Your task to perform on an android device: Clear all items from cart on bestbuy. Search for "dell xps" on bestbuy, select the first entry, and add it to the cart. Image 0: 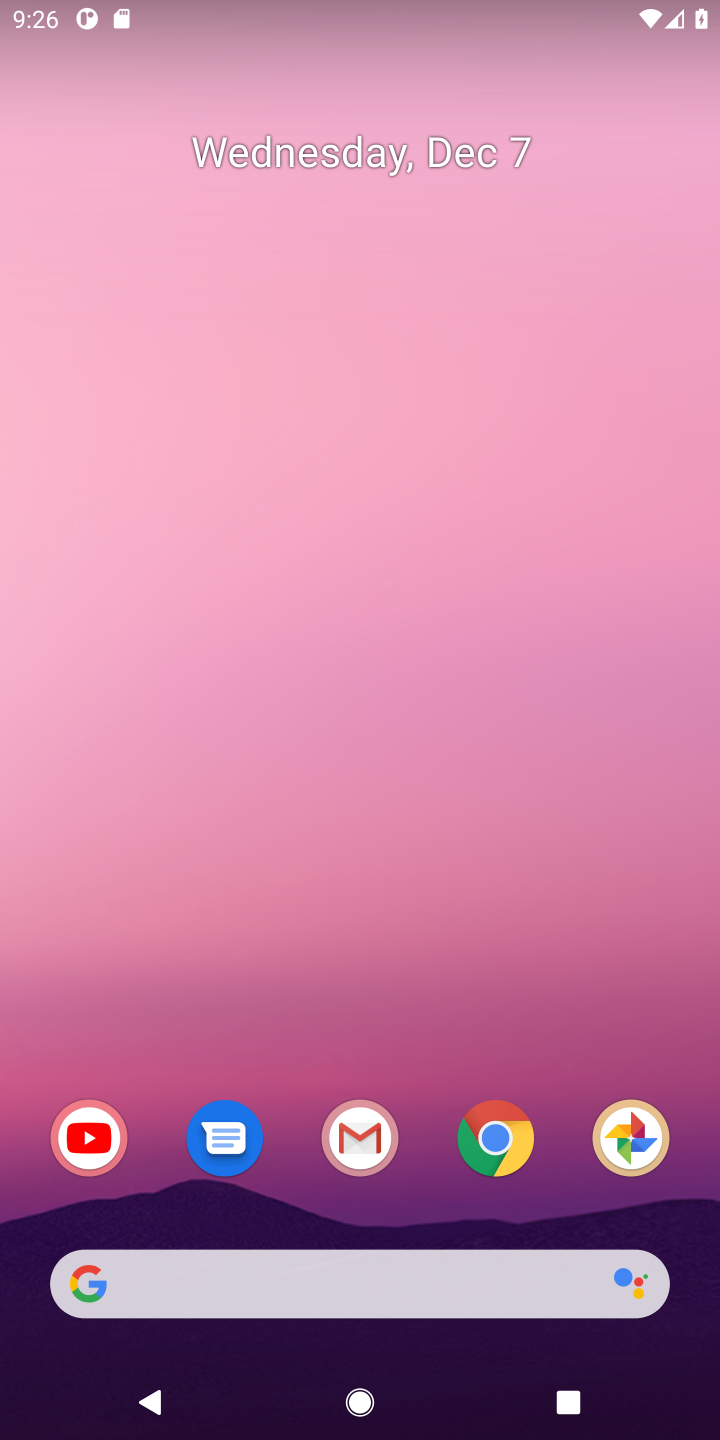
Step 0: press home button
Your task to perform on an android device: Clear all items from cart on bestbuy. Search for "dell xps" on bestbuy, select the first entry, and add it to the cart. Image 1: 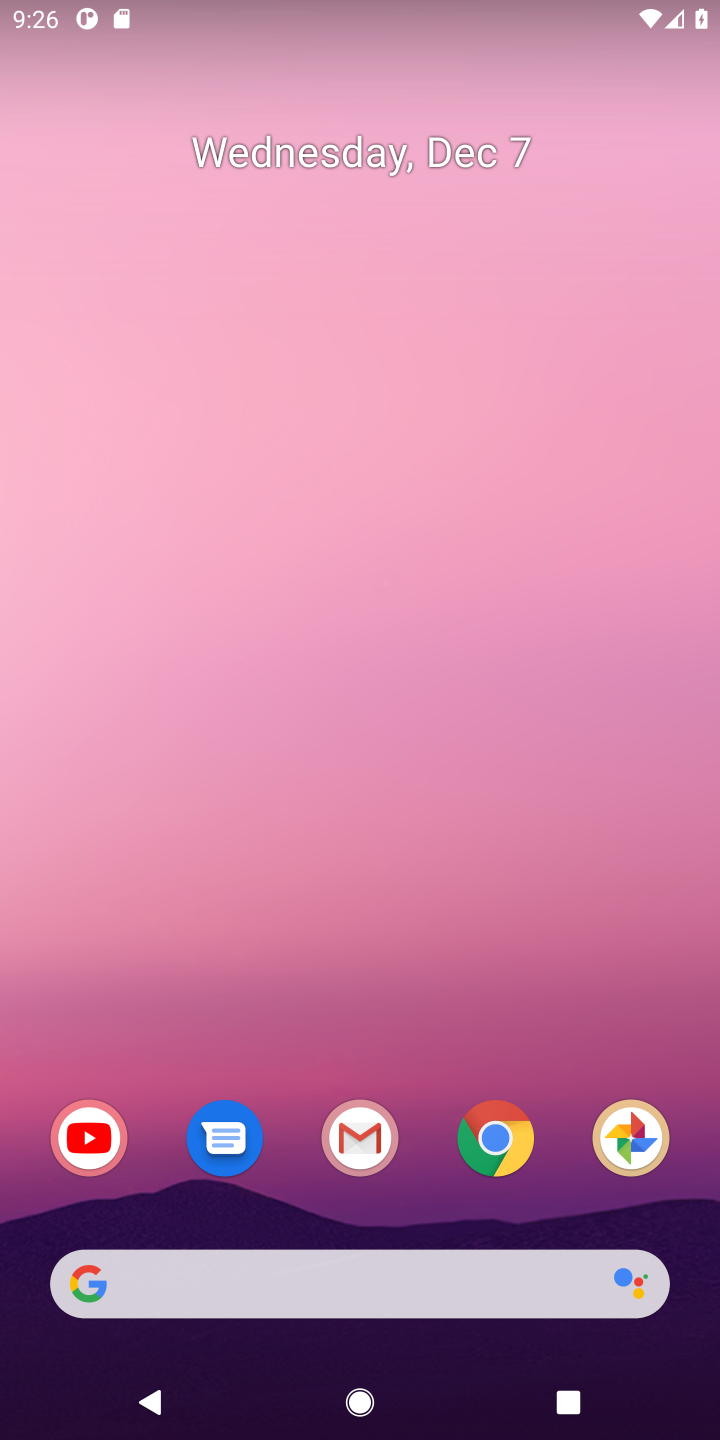
Step 1: click (120, 1284)
Your task to perform on an android device: Clear all items from cart on bestbuy. Search for "dell xps" on bestbuy, select the first entry, and add it to the cart. Image 2: 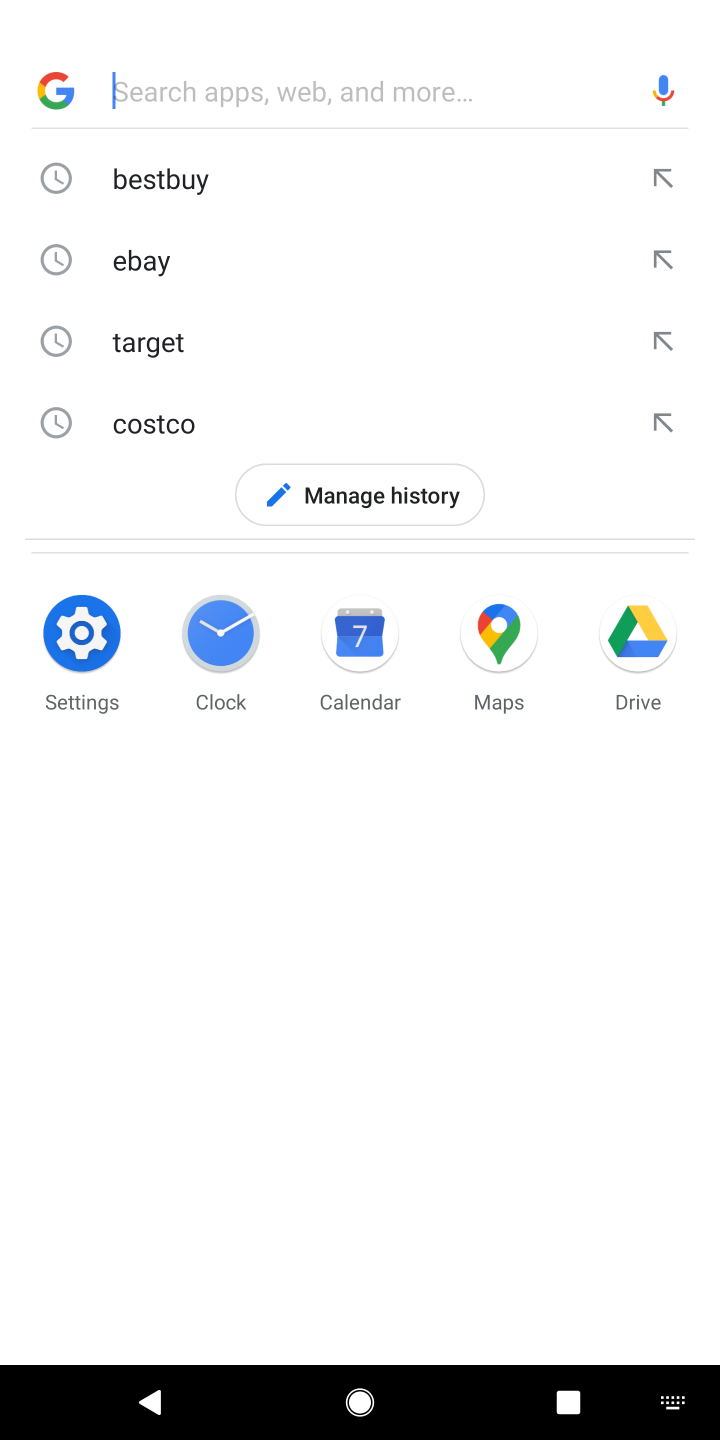
Step 2: press enter
Your task to perform on an android device: Clear all items from cart on bestbuy. Search for "dell xps" on bestbuy, select the first entry, and add it to the cart. Image 3: 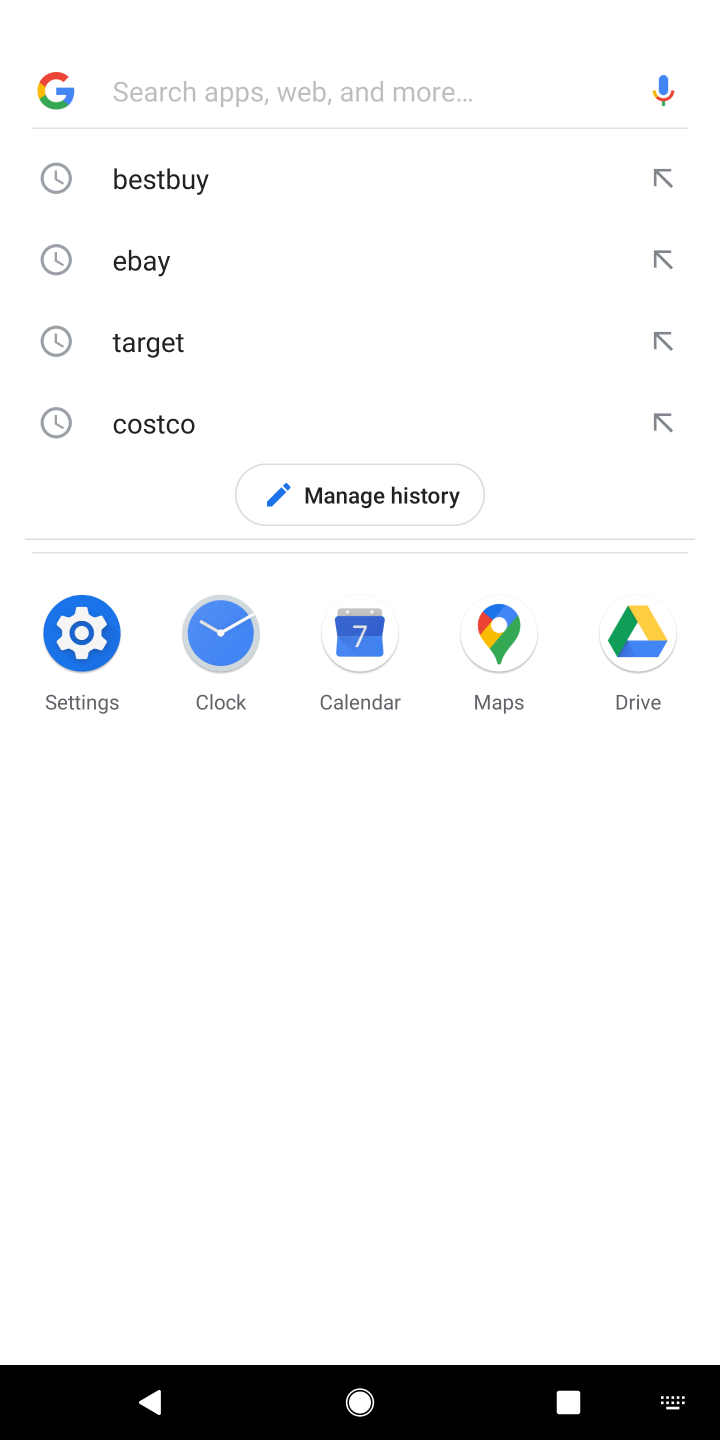
Step 3: type "bestbuy"
Your task to perform on an android device: Clear all items from cart on bestbuy. Search for "dell xps" on bestbuy, select the first entry, and add it to the cart. Image 4: 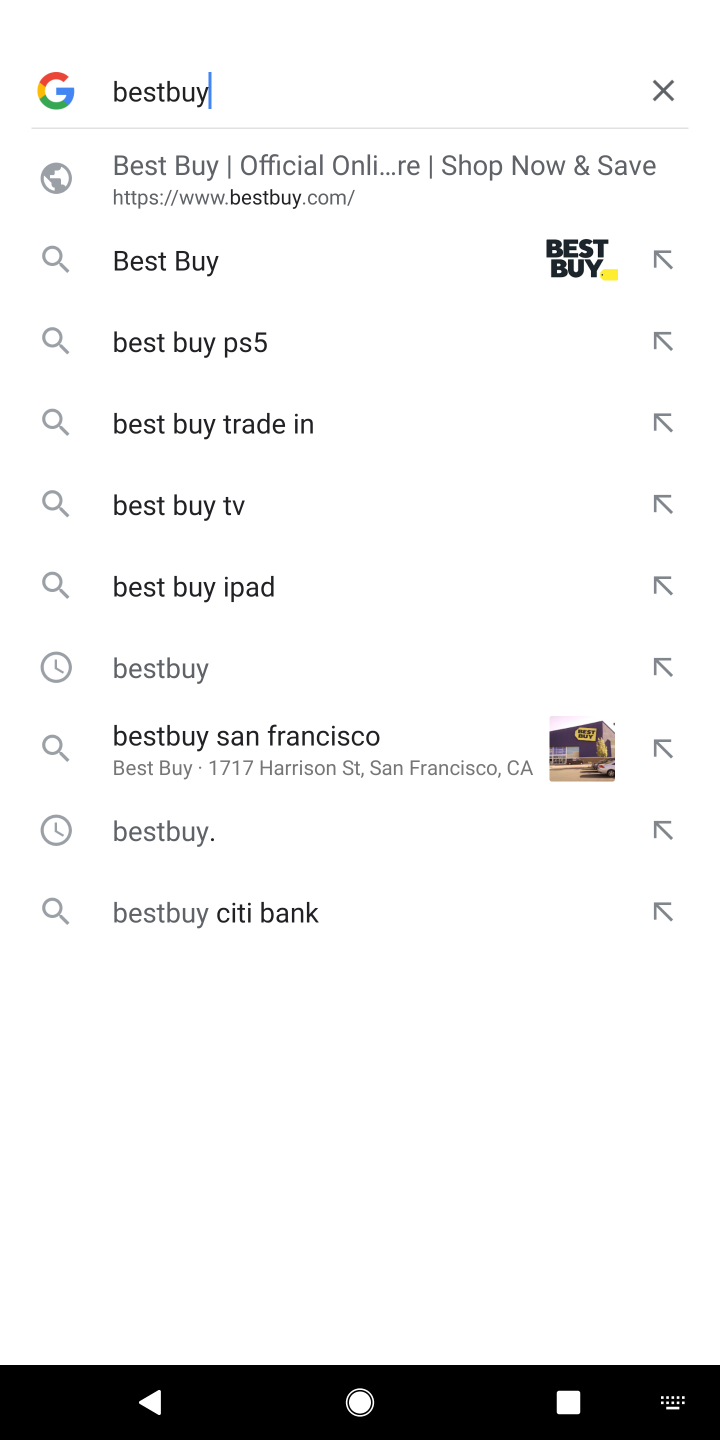
Step 4: press enter
Your task to perform on an android device: Clear all items from cart on bestbuy. Search for "dell xps" on bestbuy, select the first entry, and add it to the cart. Image 5: 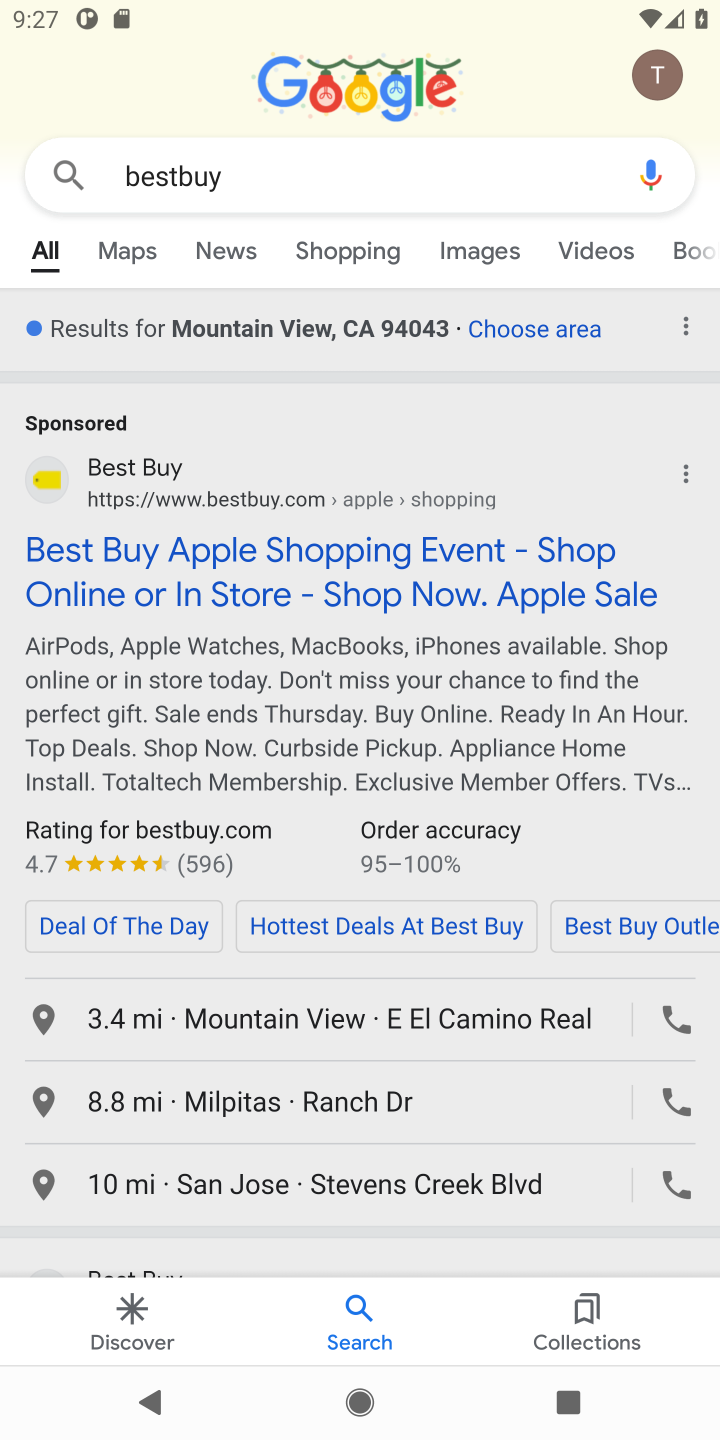
Step 5: click (298, 580)
Your task to perform on an android device: Clear all items from cart on bestbuy. Search for "dell xps" on bestbuy, select the first entry, and add it to the cart. Image 6: 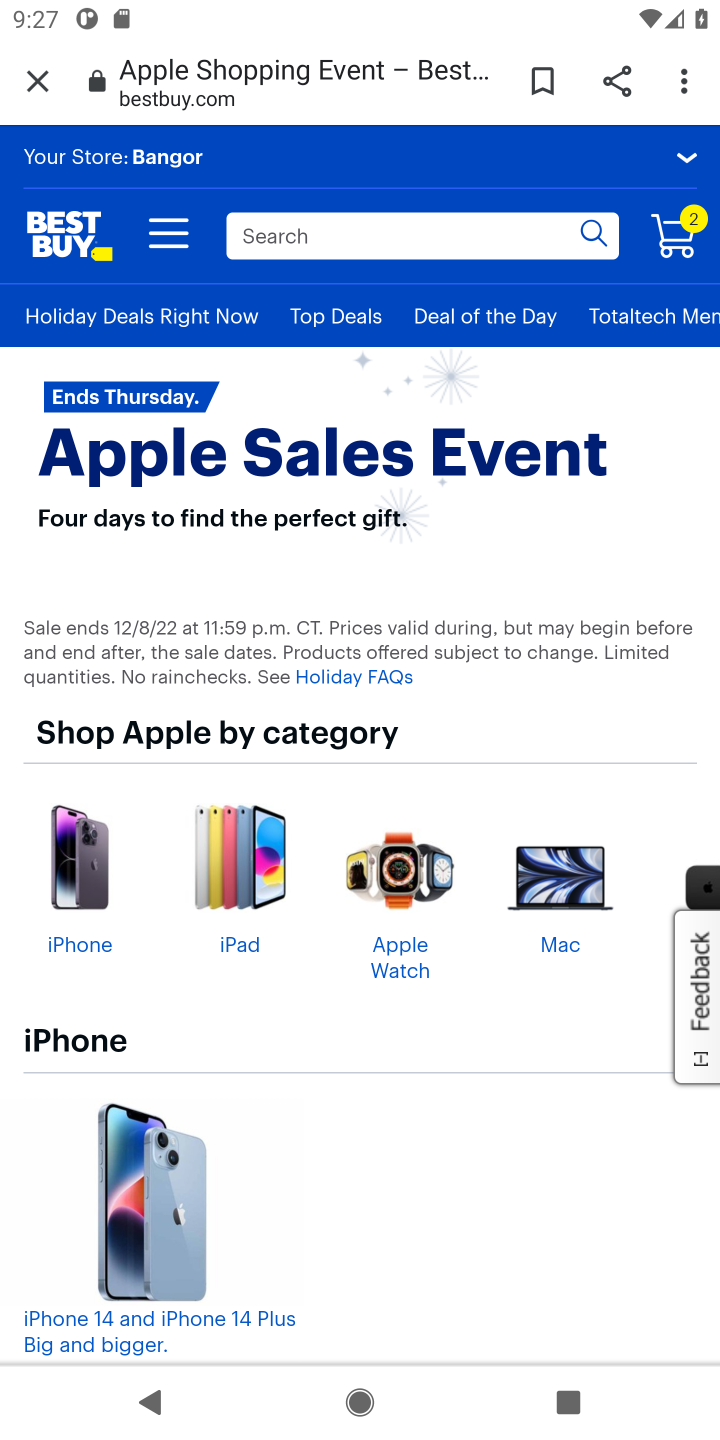
Step 6: click (699, 225)
Your task to perform on an android device: Clear all items from cart on bestbuy. Search for "dell xps" on bestbuy, select the first entry, and add it to the cart. Image 7: 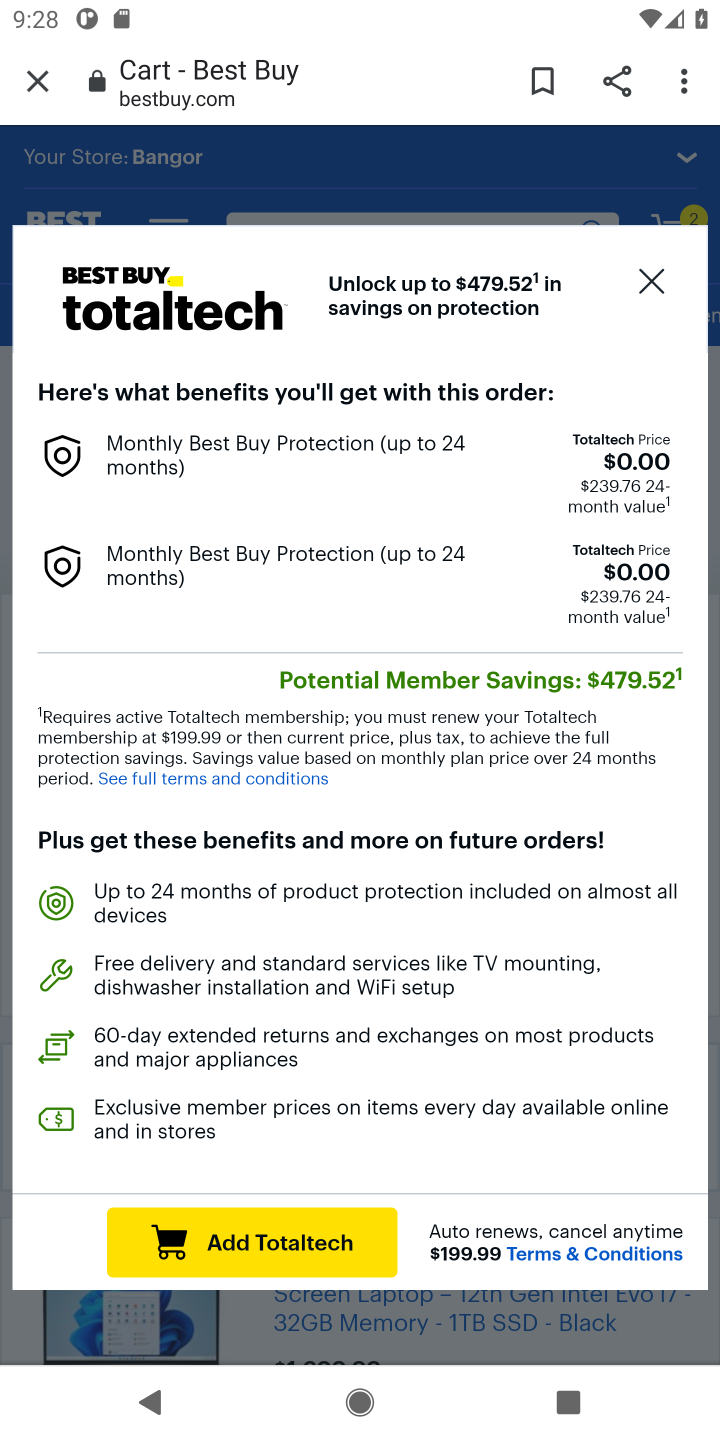
Step 7: click (646, 265)
Your task to perform on an android device: Clear all items from cart on bestbuy. Search for "dell xps" on bestbuy, select the first entry, and add it to the cart. Image 8: 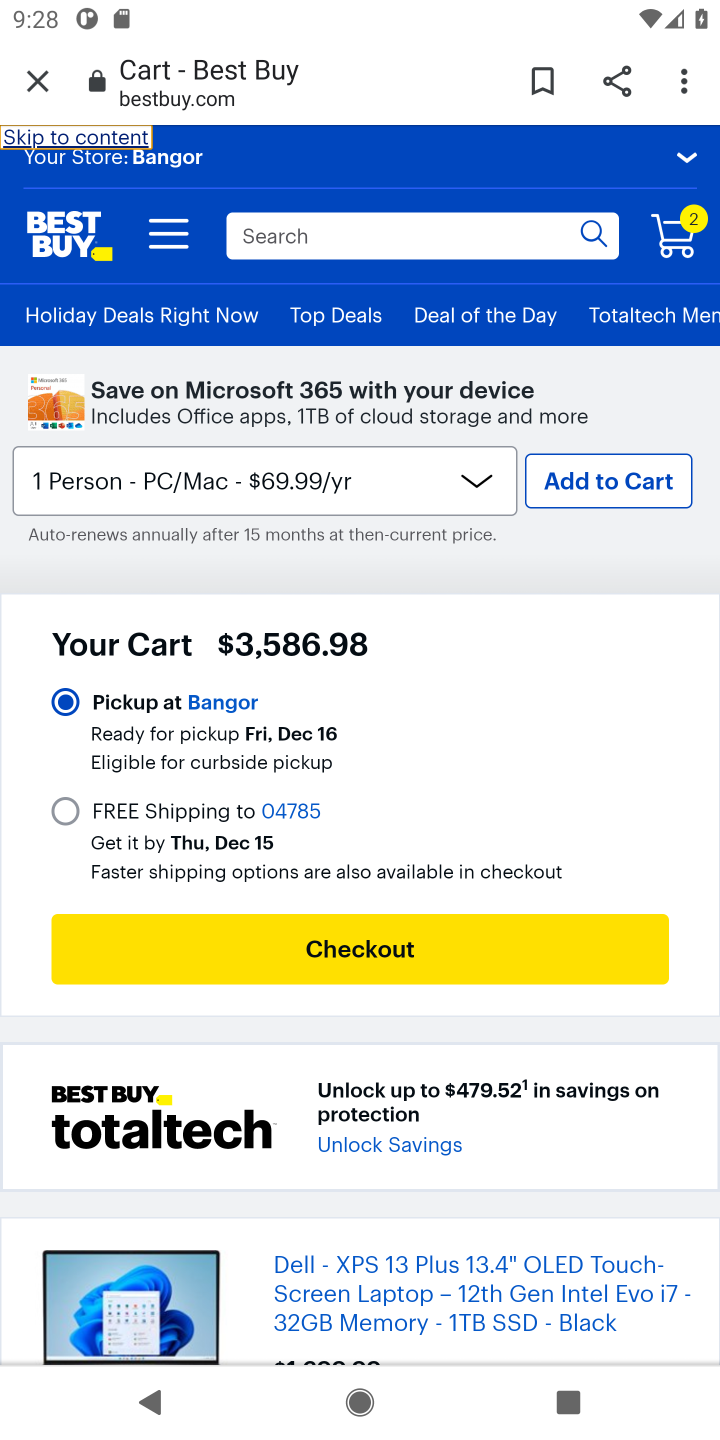
Step 8: drag from (380, 1112) to (393, 514)
Your task to perform on an android device: Clear all items from cart on bestbuy. Search for "dell xps" on bestbuy, select the first entry, and add it to the cart. Image 9: 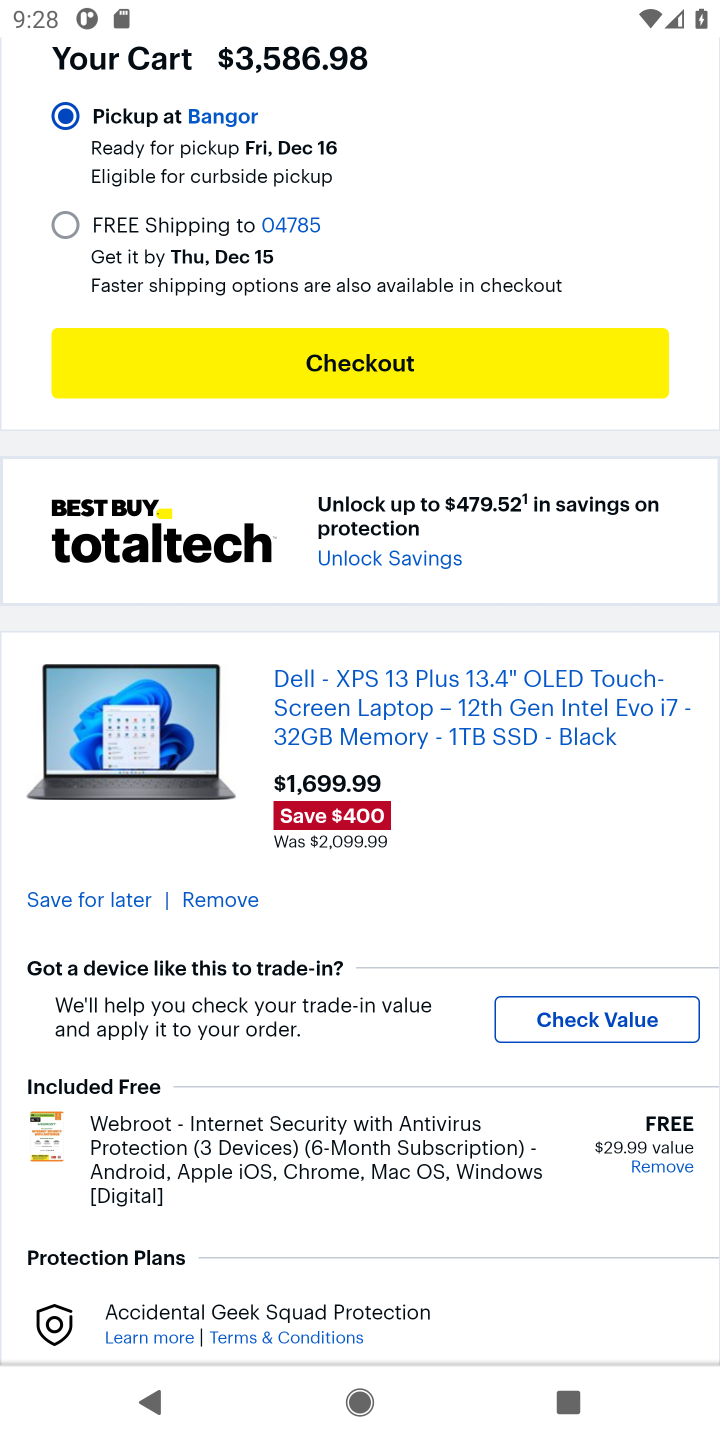
Step 9: drag from (346, 1083) to (418, 527)
Your task to perform on an android device: Clear all items from cart on bestbuy. Search for "dell xps" on bestbuy, select the first entry, and add it to the cart. Image 10: 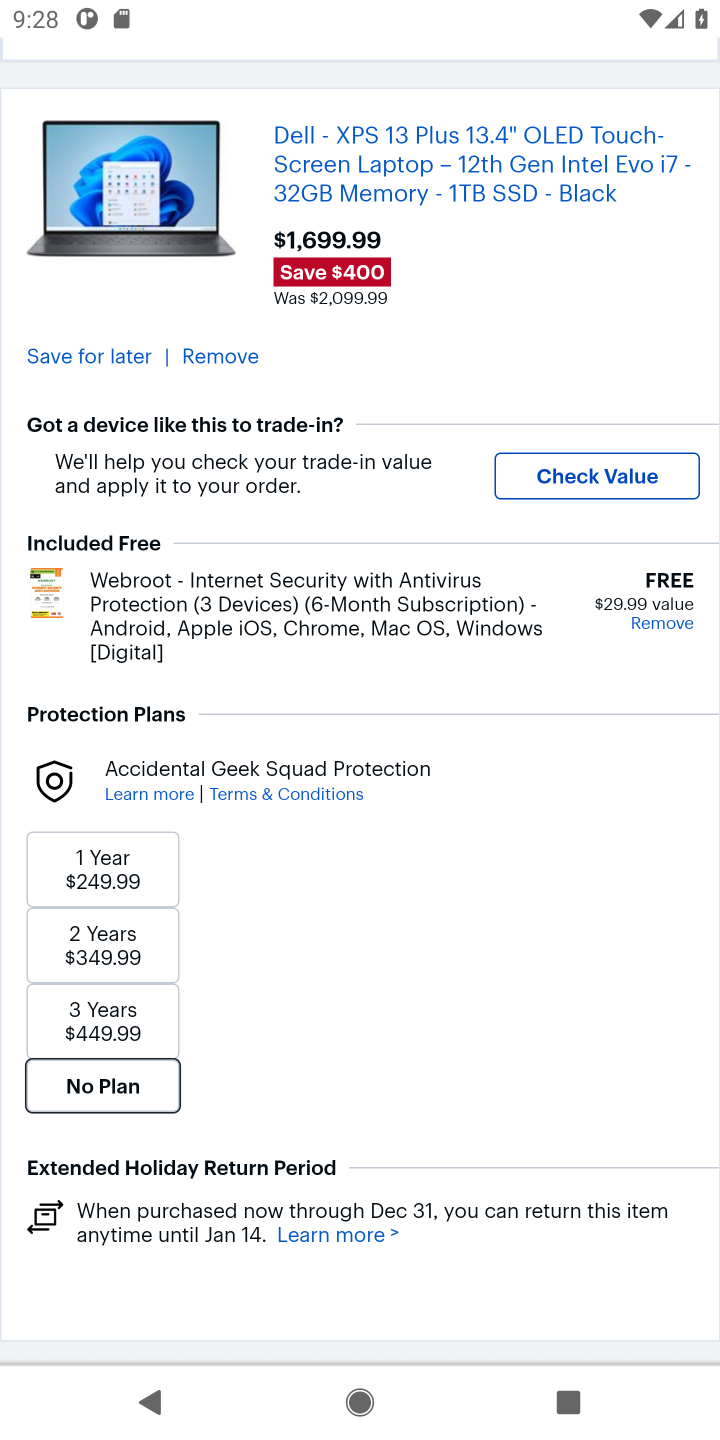
Step 10: drag from (371, 1122) to (388, 693)
Your task to perform on an android device: Clear all items from cart on bestbuy. Search for "dell xps" on bestbuy, select the first entry, and add it to the cart. Image 11: 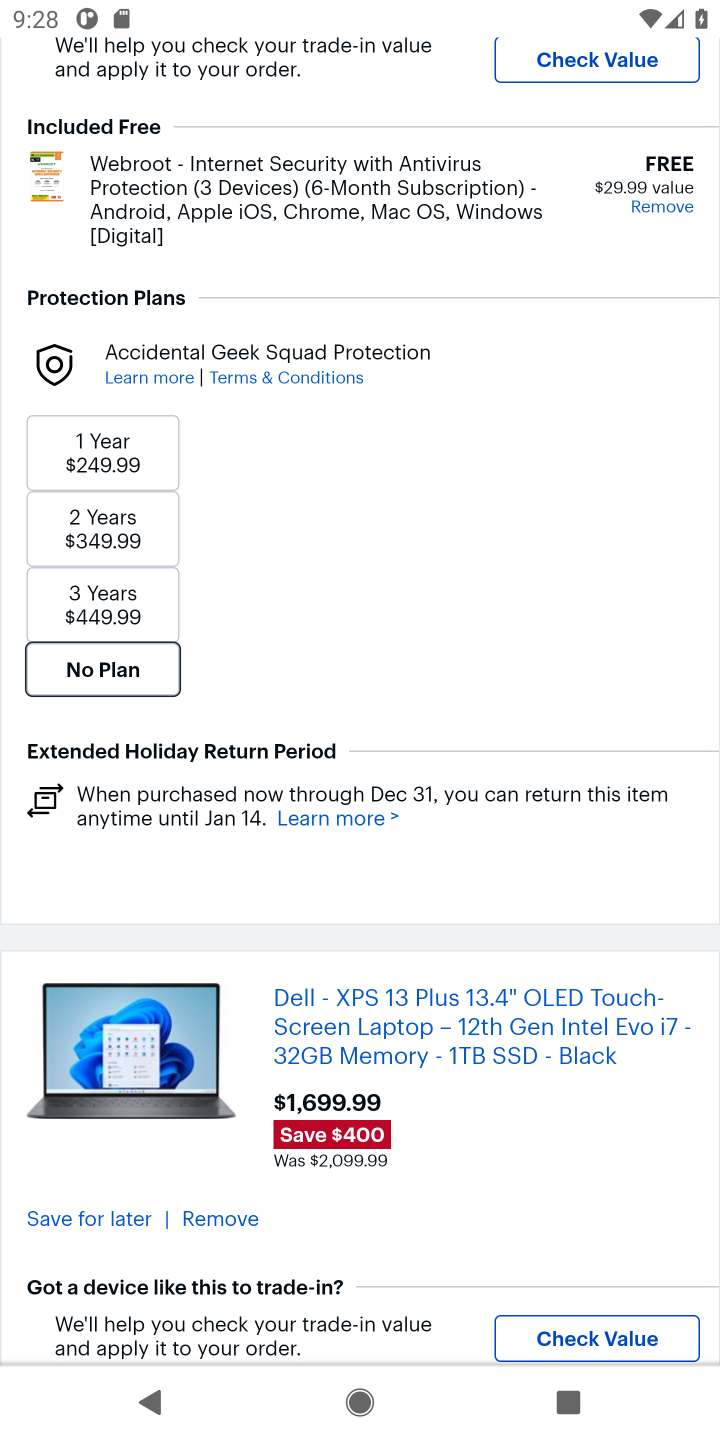
Step 11: drag from (409, 1098) to (405, 625)
Your task to perform on an android device: Clear all items from cart on bestbuy. Search for "dell xps" on bestbuy, select the first entry, and add it to the cart. Image 12: 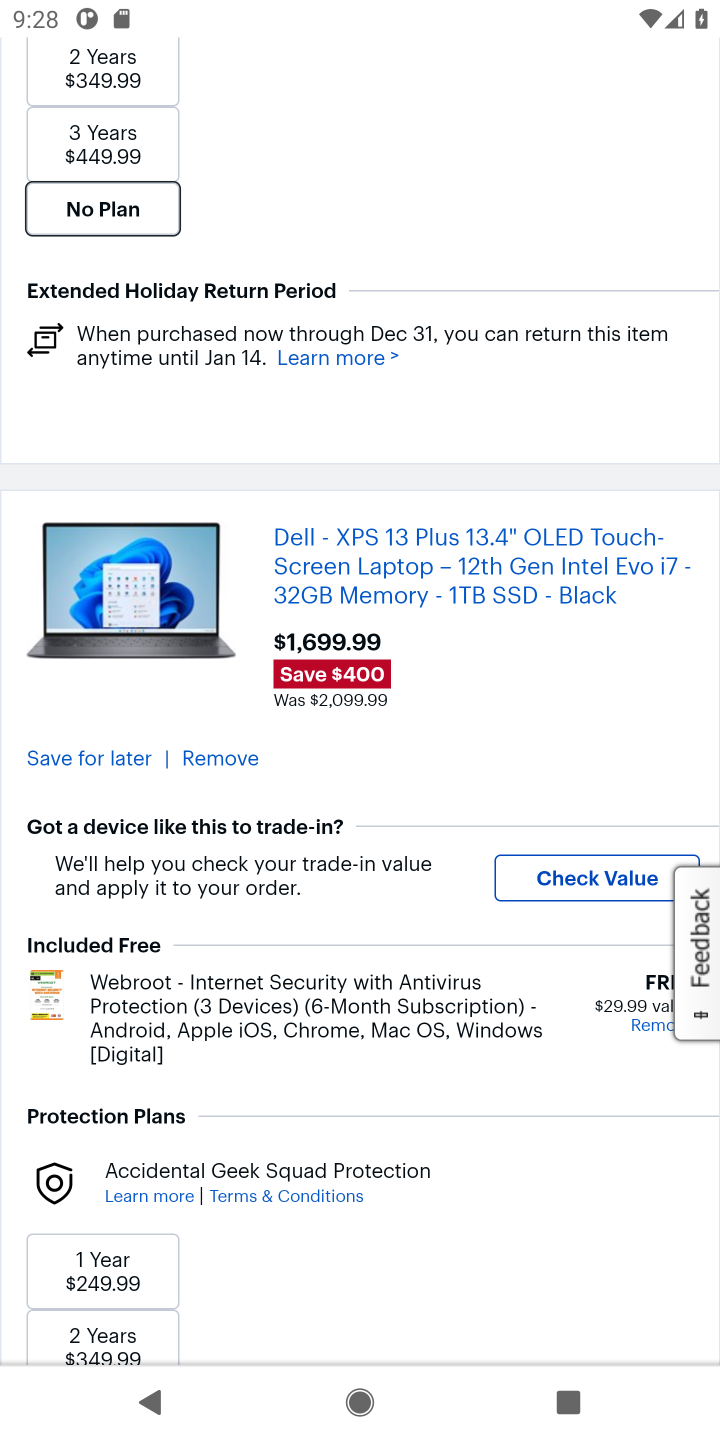
Step 12: click (207, 754)
Your task to perform on an android device: Clear all items from cart on bestbuy. Search for "dell xps" on bestbuy, select the first entry, and add it to the cart. Image 13: 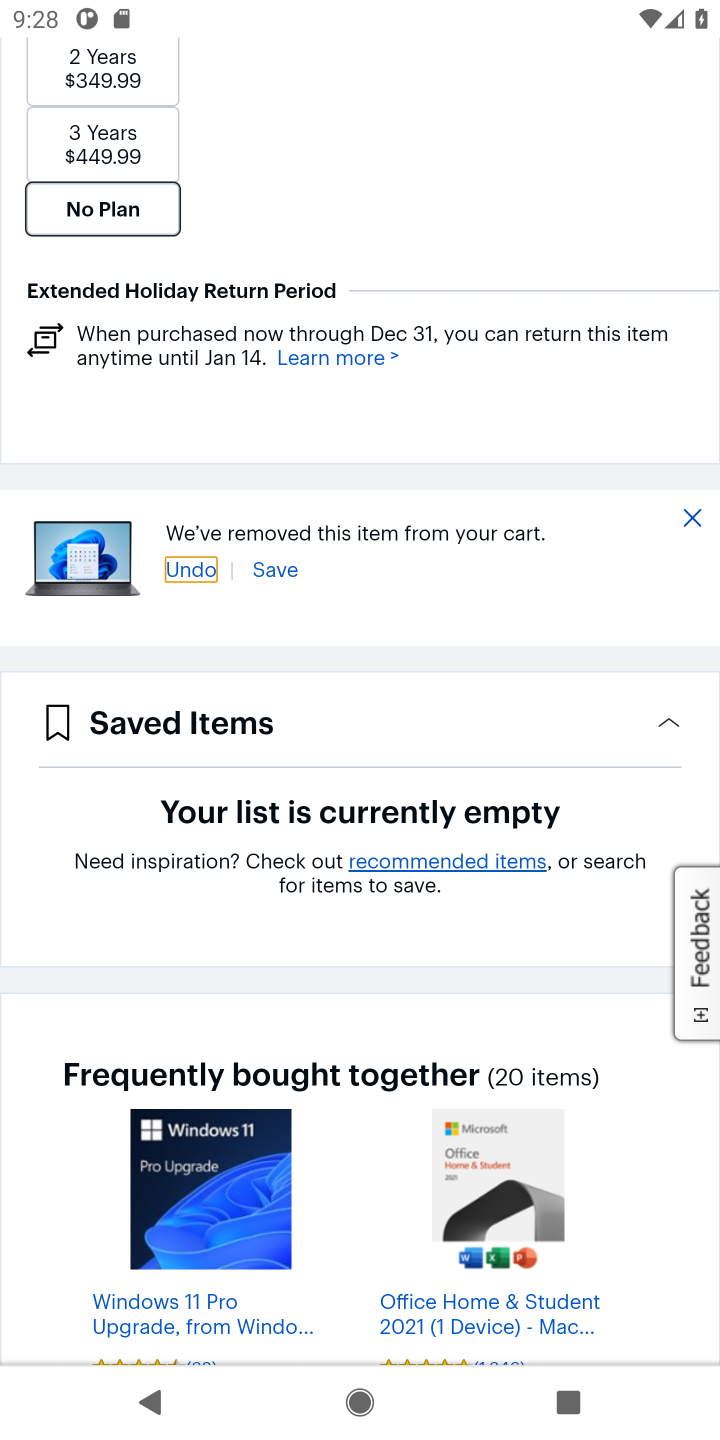
Step 13: drag from (498, 259) to (483, 1082)
Your task to perform on an android device: Clear all items from cart on bestbuy. Search for "dell xps" on bestbuy, select the first entry, and add it to the cart. Image 14: 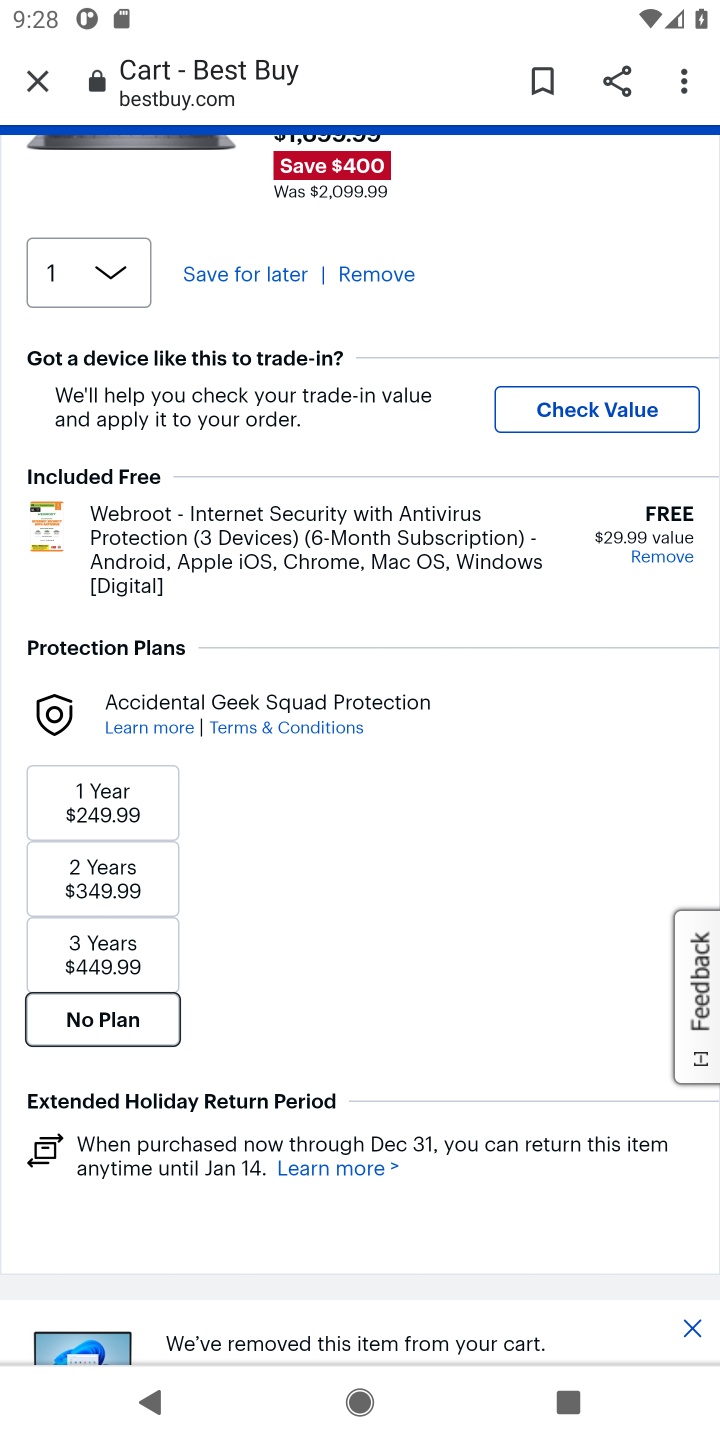
Step 14: click (316, 170)
Your task to perform on an android device: Clear all items from cart on bestbuy. Search for "dell xps" on bestbuy, select the first entry, and add it to the cart. Image 15: 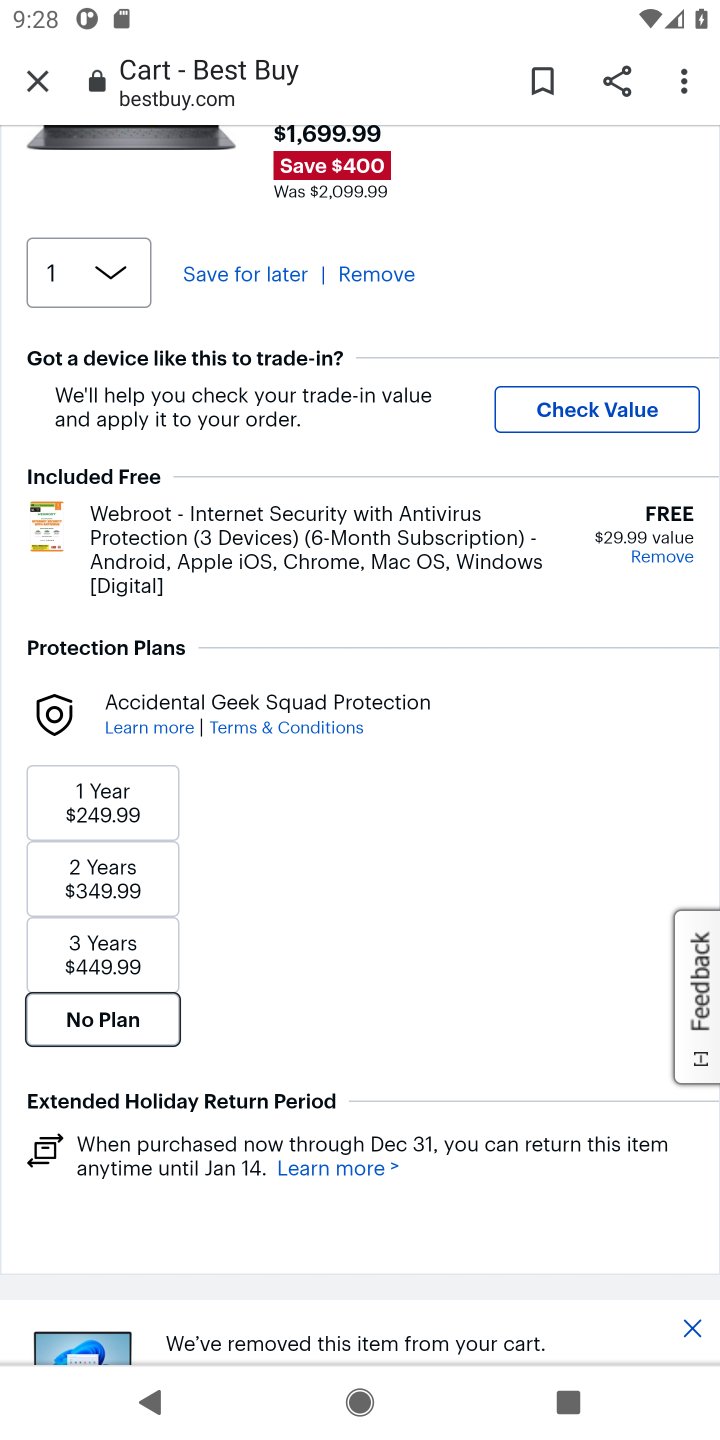
Step 15: press back button
Your task to perform on an android device: Clear all items from cart on bestbuy. Search for "dell xps" on bestbuy, select the first entry, and add it to the cart. Image 16: 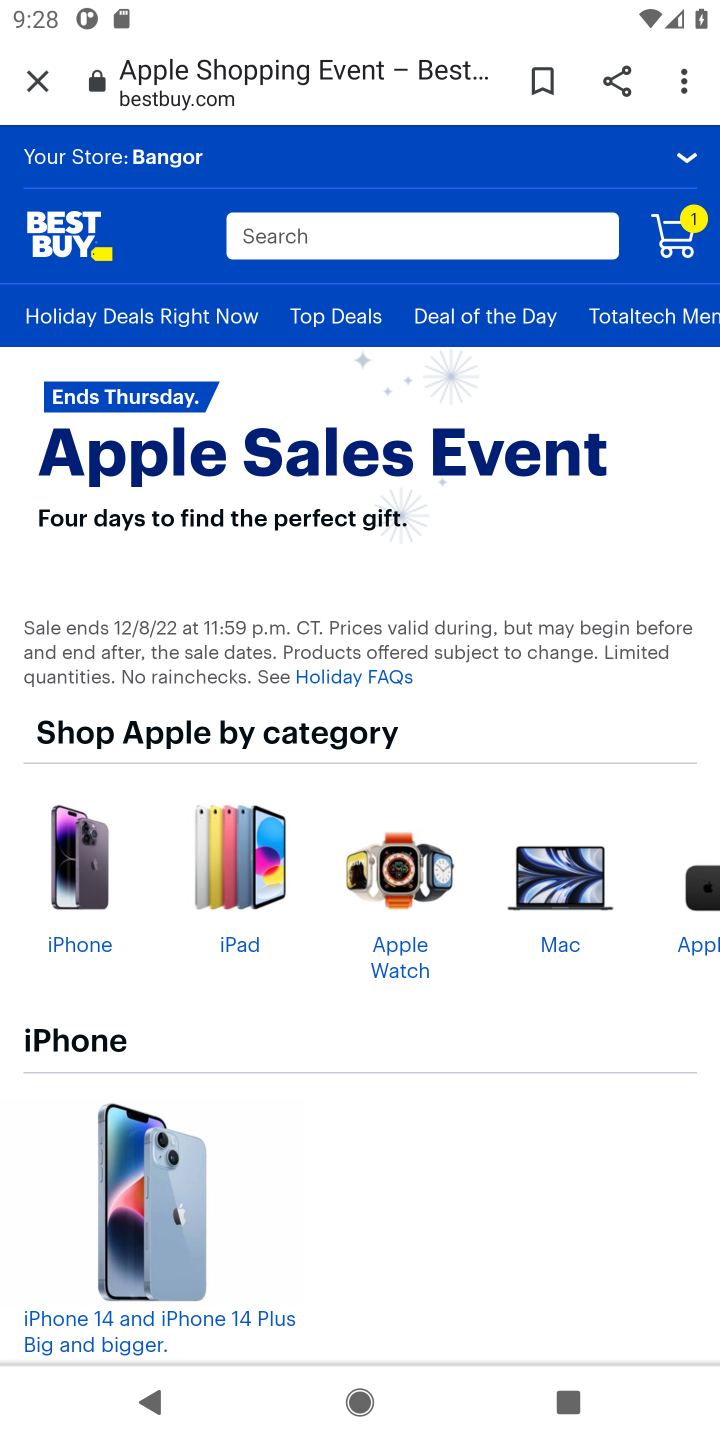
Step 16: click (273, 231)
Your task to perform on an android device: Clear all items from cart on bestbuy. Search for "dell xps" on bestbuy, select the first entry, and add it to the cart. Image 17: 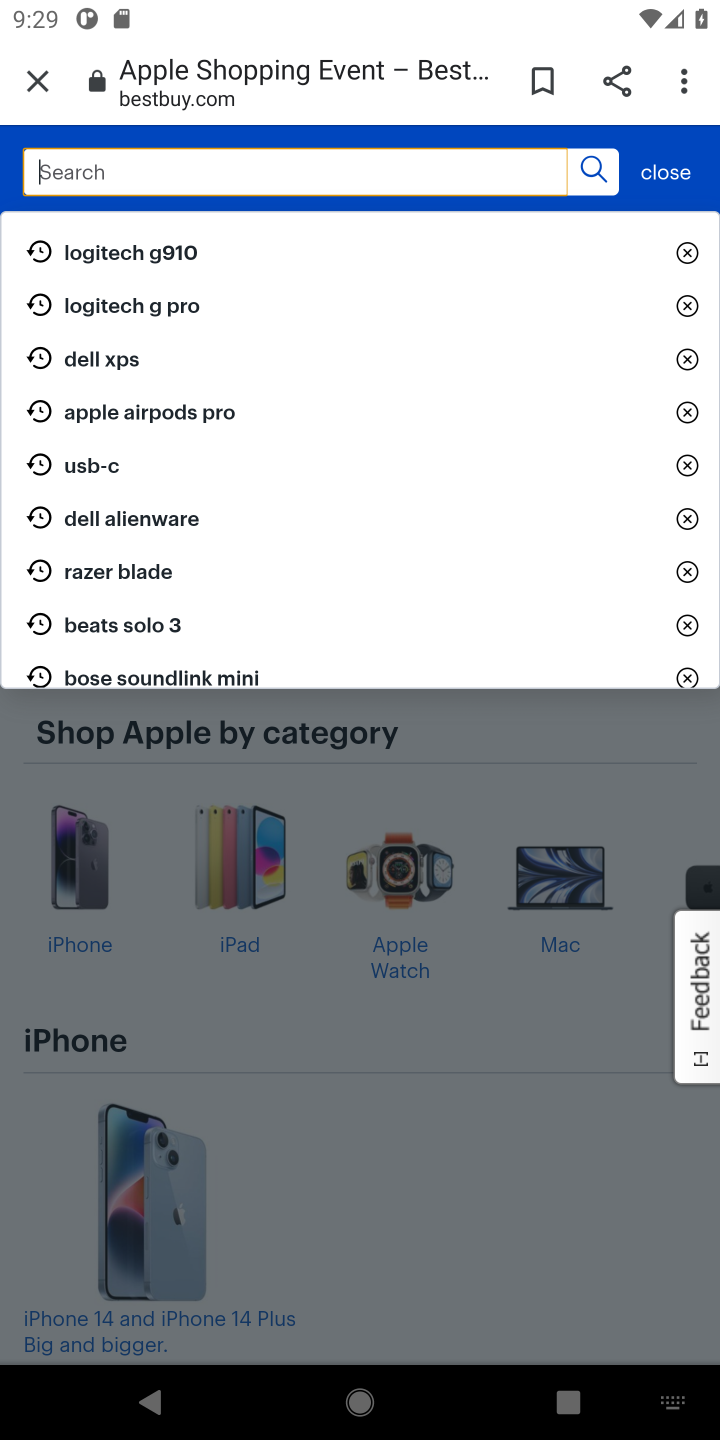
Step 17: press enter
Your task to perform on an android device: Clear all items from cart on bestbuy. Search for "dell xps" on bestbuy, select the first entry, and add it to the cart. Image 18: 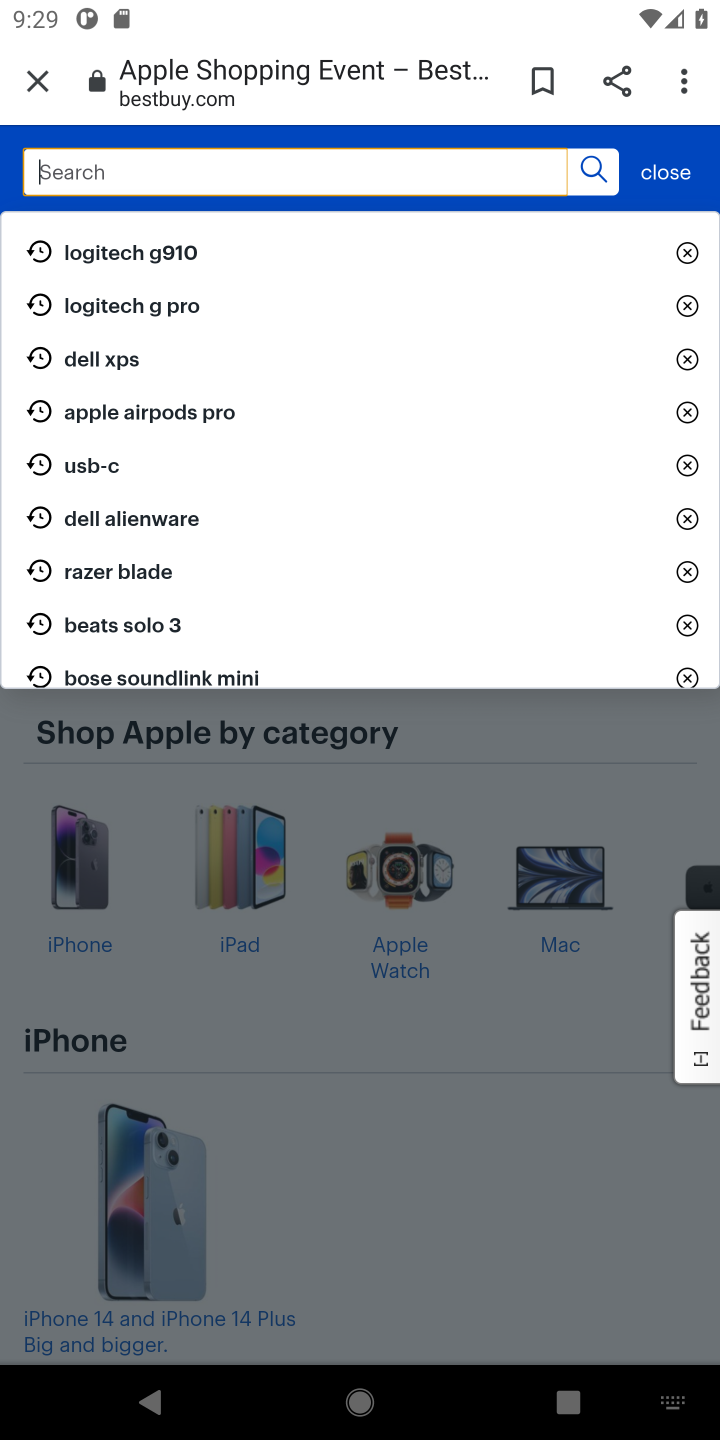
Step 18: type "dell xps"
Your task to perform on an android device: Clear all items from cart on bestbuy. Search for "dell xps" on bestbuy, select the first entry, and add it to the cart. Image 19: 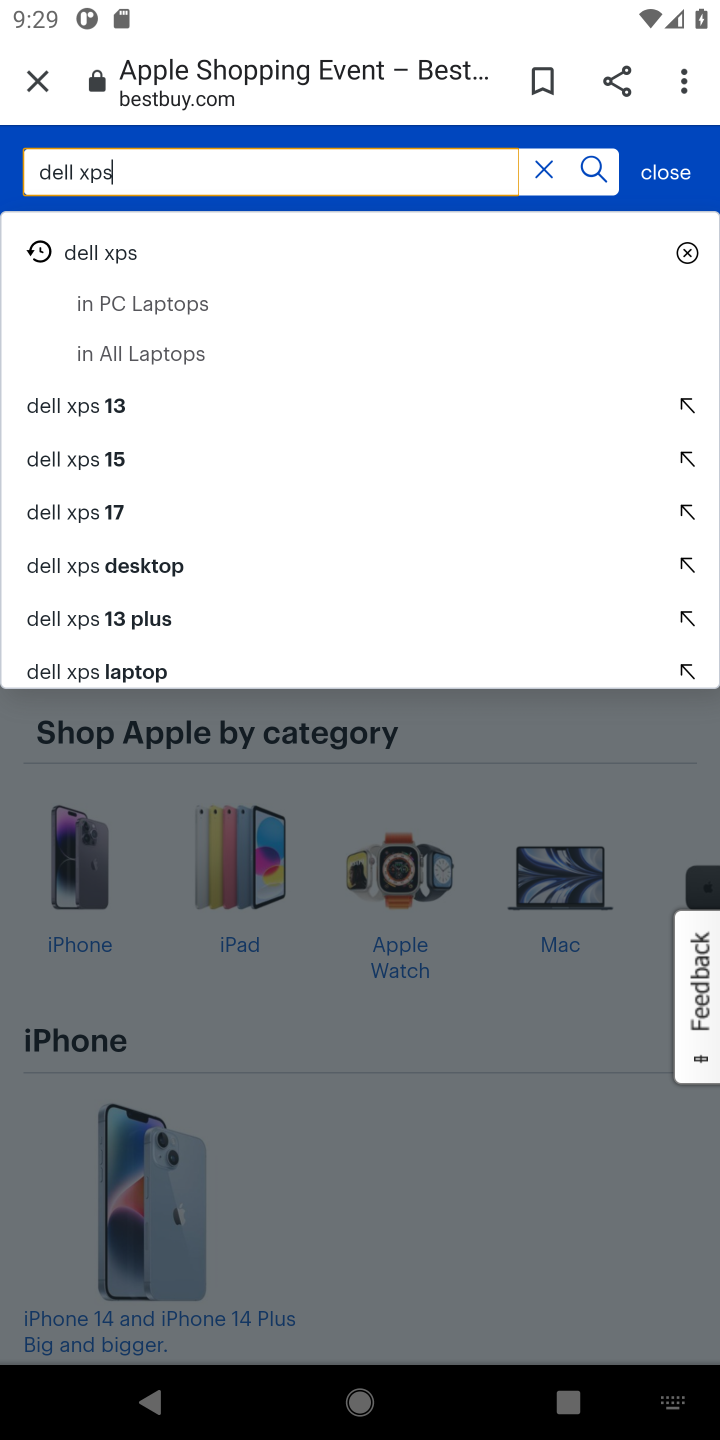
Step 19: press enter
Your task to perform on an android device: Clear all items from cart on bestbuy. Search for "dell xps" on bestbuy, select the first entry, and add it to the cart. Image 20: 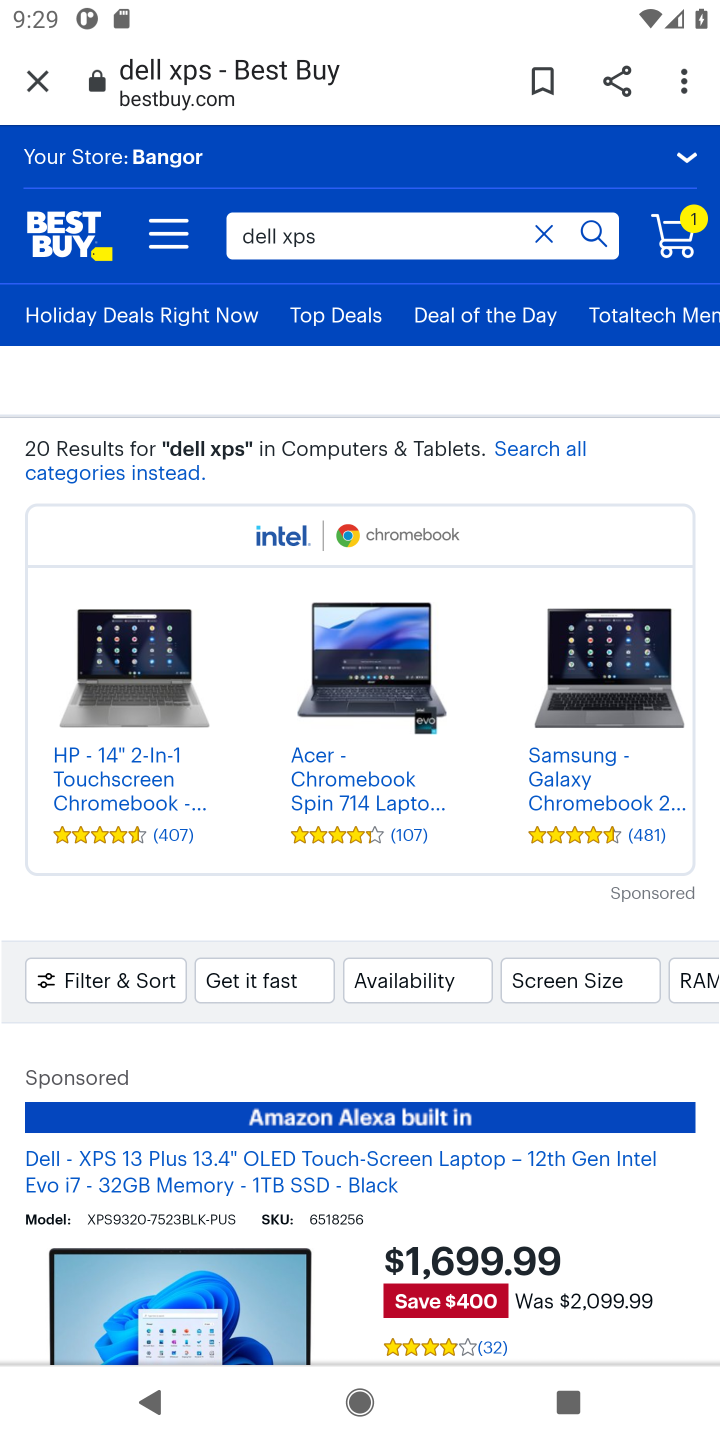
Step 20: drag from (455, 1157) to (491, 487)
Your task to perform on an android device: Clear all items from cart on bestbuy. Search for "dell xps" on bestbuy, select the first entry, and add it to the cart. Image 21: 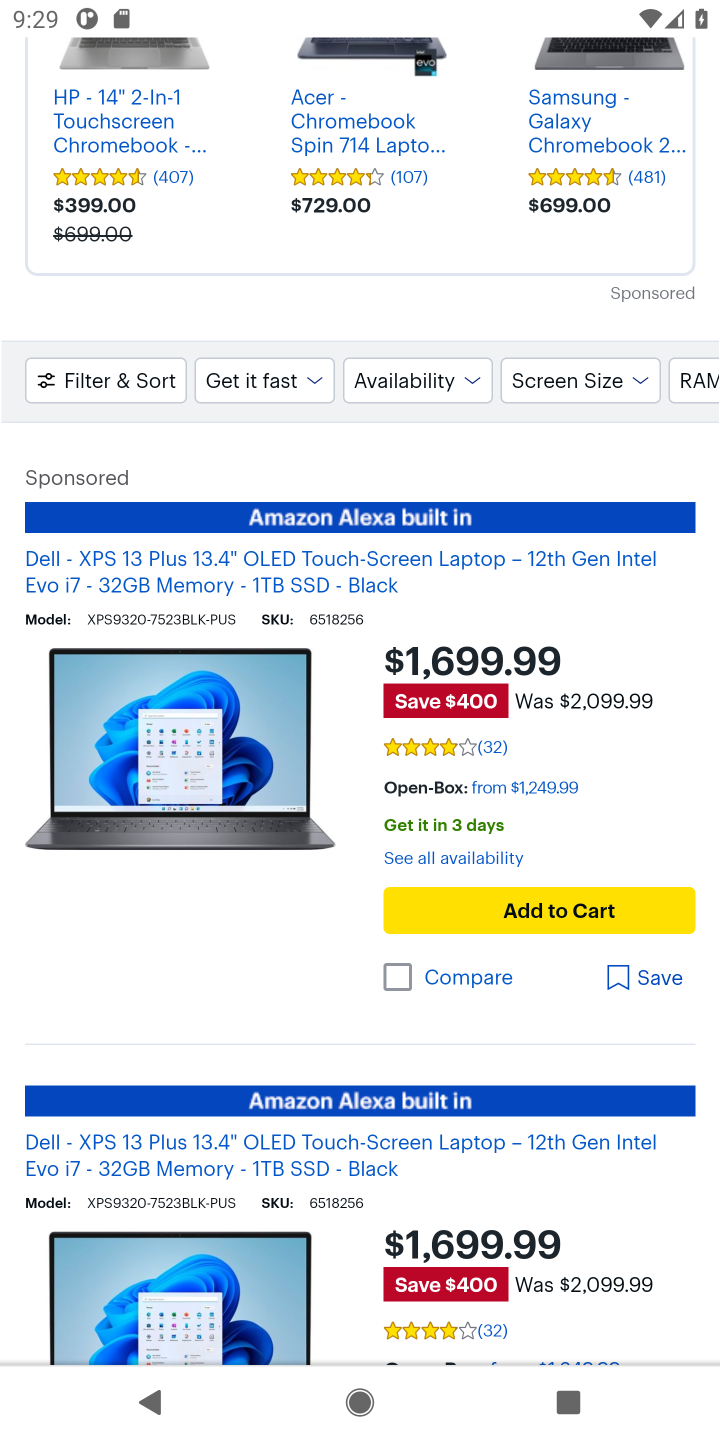
Step 21: drag from (311, 1056) to (369, 541)
Your task to perform on an android device: Clear all items from cart on bestbuy. Search for "dell xps" on bestbuy, select the first entry, and add it to the cart. Image 22: 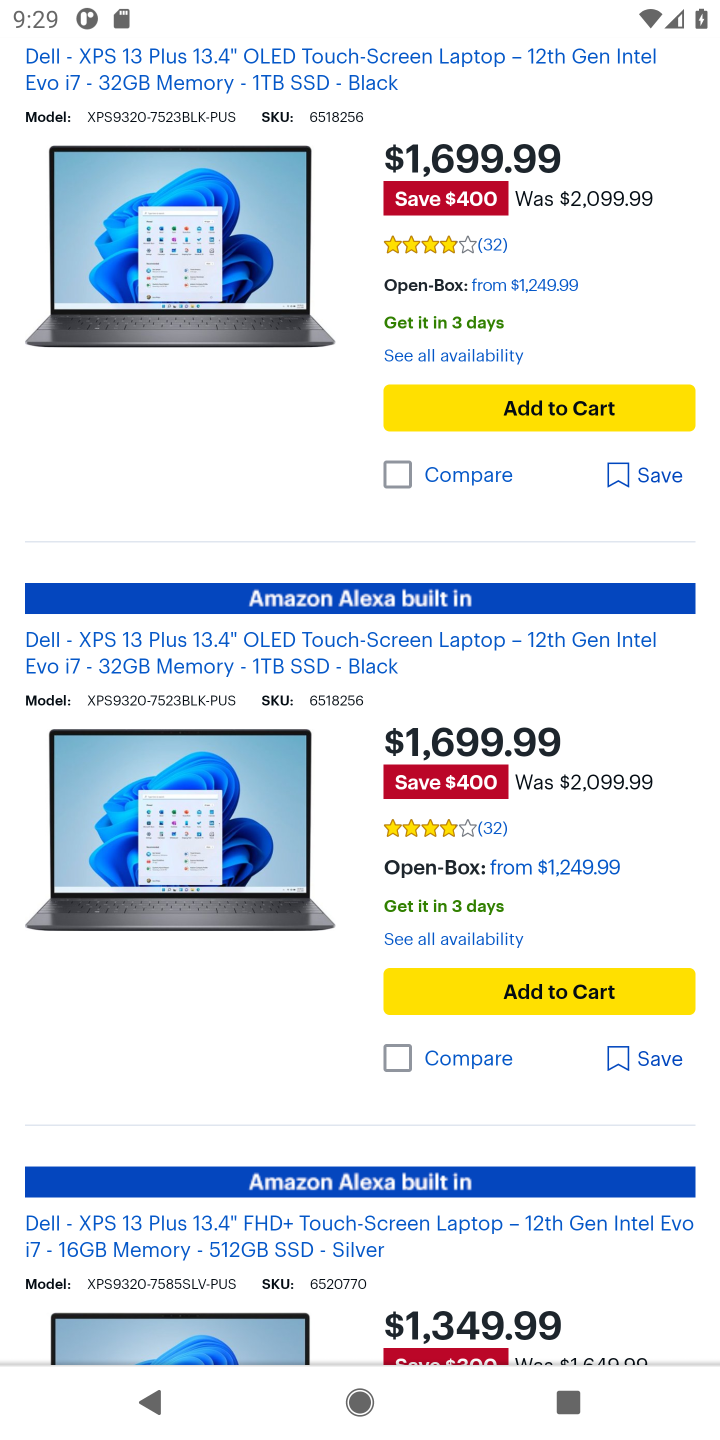
Step 22: click (516, 412)
Your task to perform on an android device: Clear all items from cart on bestbuy. Search for "dell xps" on bestbuy, select the first entry, and add it to the cart. Image 23: 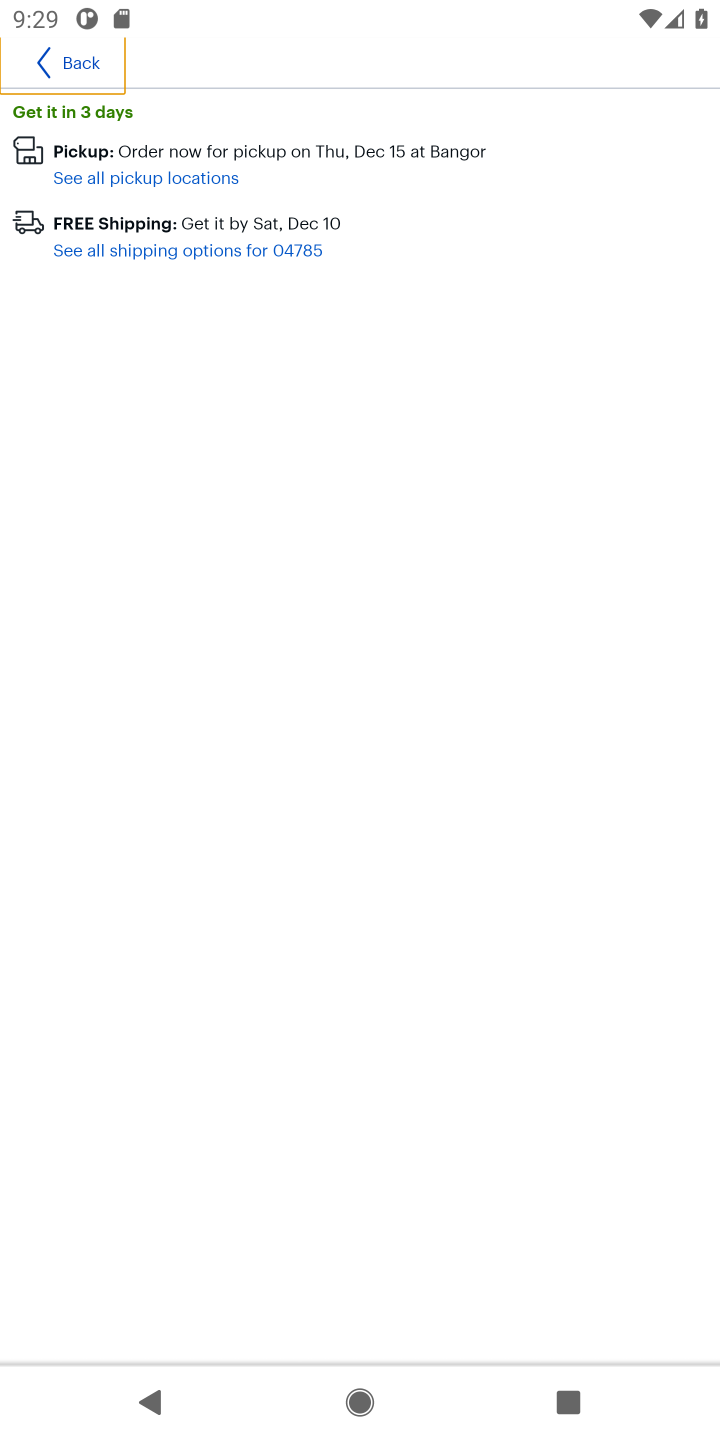
Step 23: drag from (289, 805) to (264, 182)
Your task to perform on an android device: Clear all items from cart on bestbuy. Search for "dell xps" on bestbuy, select the first entry, and add it to the cart. Image 24: 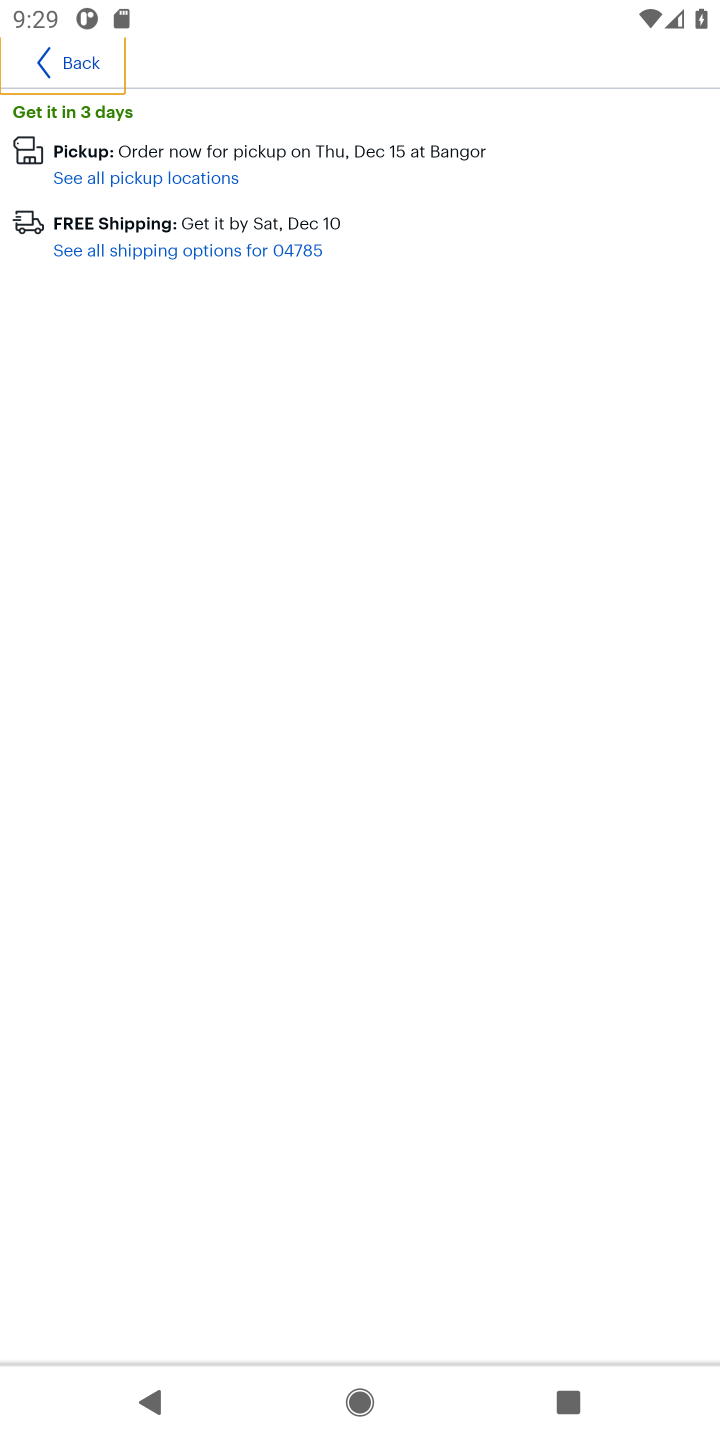
Step 24: click (71, 66)
Your task to perform on an android device: Clear all items from cart on bestbuy. Search for "dell xps" on bestbuy, select the first entry, and add it to the cart. Image 25: 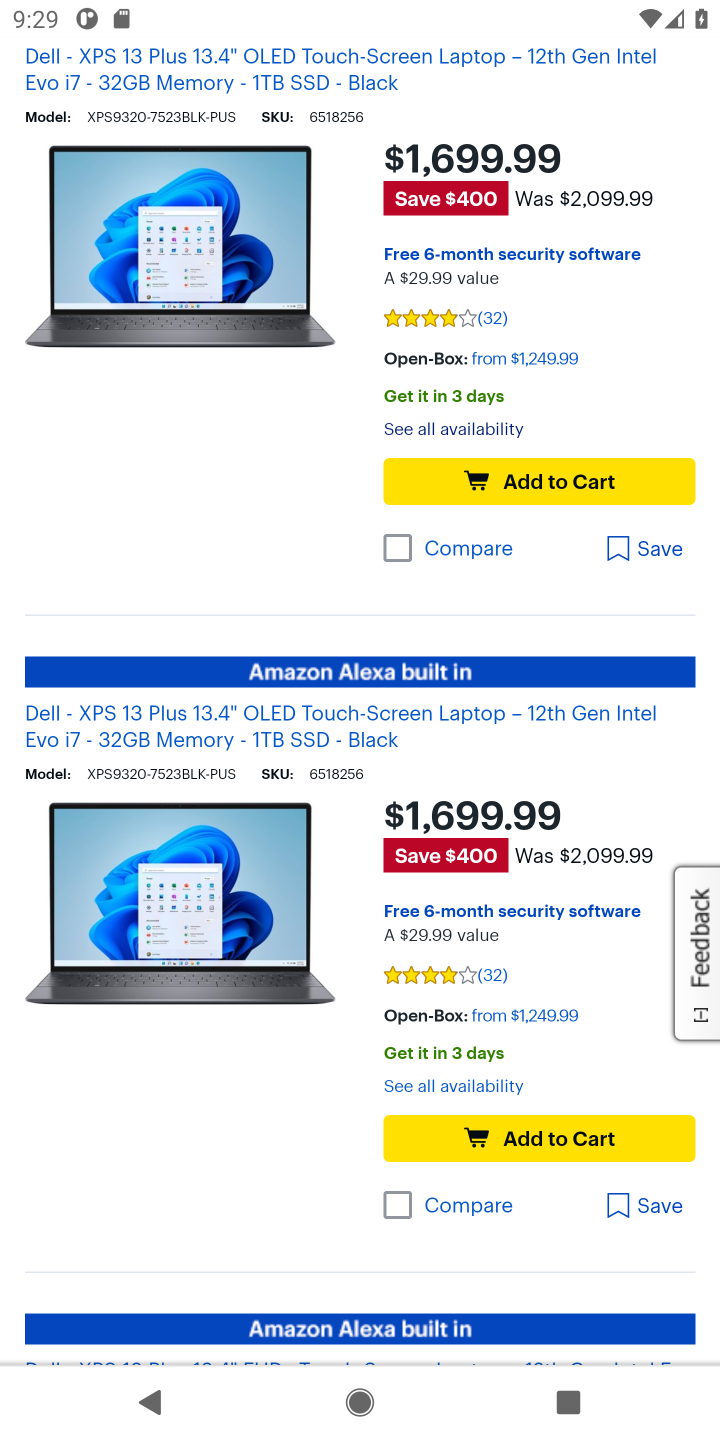
Step 25: click (508, 471)
Your task to perform on an android device: Clear all items from cart on bestbuy. Search for "dell xps" on bestbuy, select the first entry, and add it to the cart. Image 26: 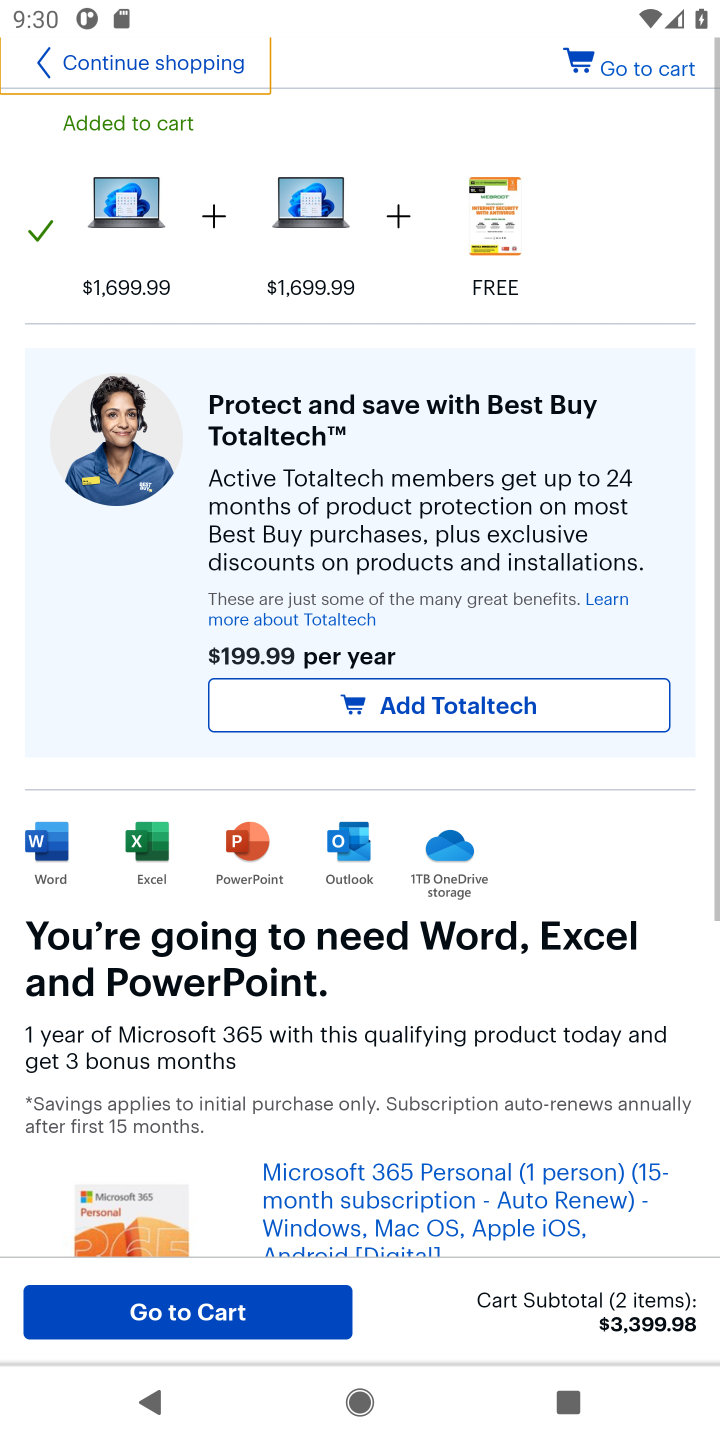
Step 26: task complete